Your task to perform on an android device: Find coffee shops on Maps Image 0: 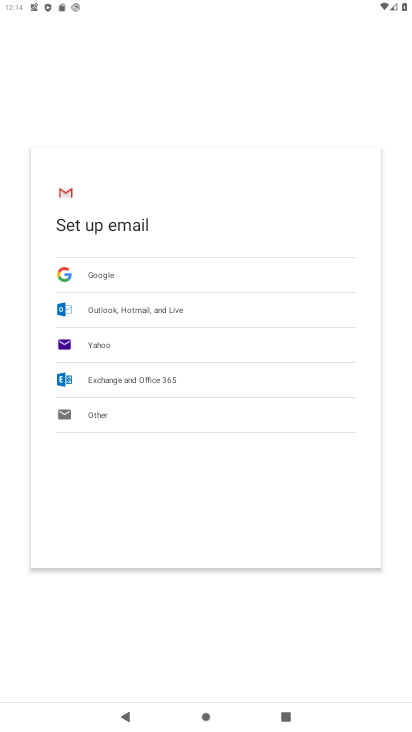
Step 0: press home button
Your task to perform on an android device: Find coffee shops on Maps Image 1: 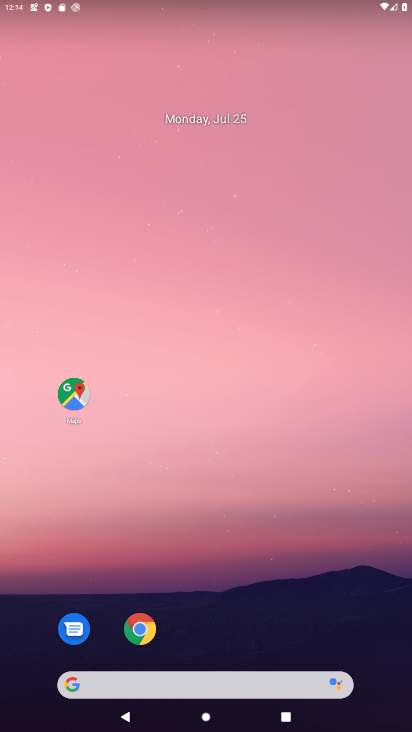
Step 1: click (76, 401)
Your task to perform on an android device: Find coffee shops on Maps Image 2: 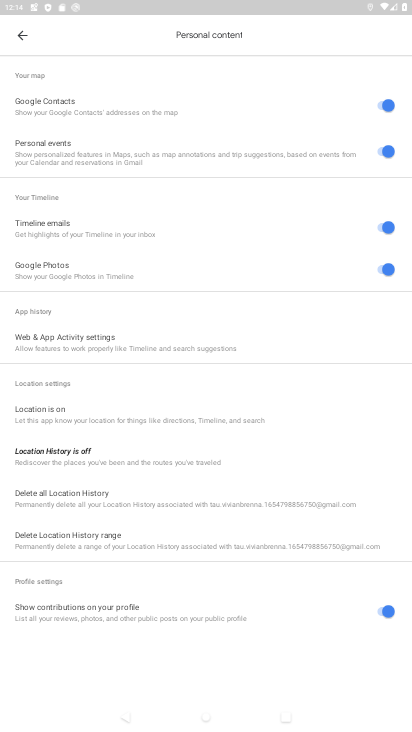
Step 2: click (20, 43)
Your task to perform on an android device: Find coffee shops on Maps Image 3: 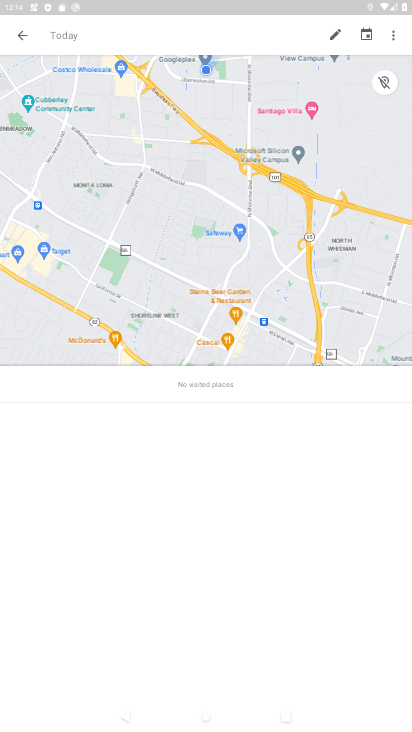
Step 3: click (20, 43)
Your task to perform on an android device: Find coffee shops on Maps Image 4: 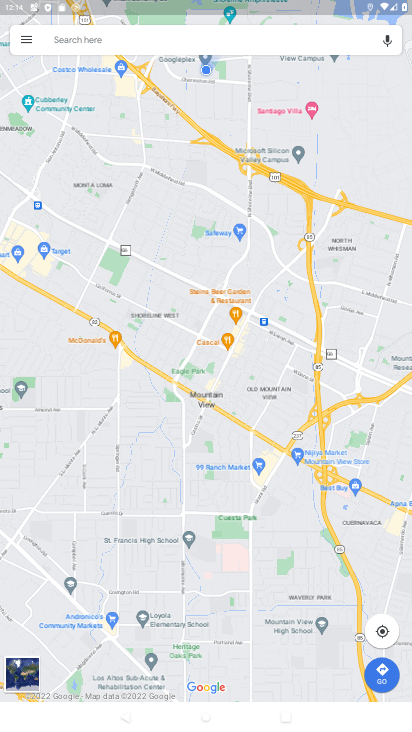
Step 4: click (72, 41)
Your task to perform on an android device: Find coffee shops on Maps Image 5: 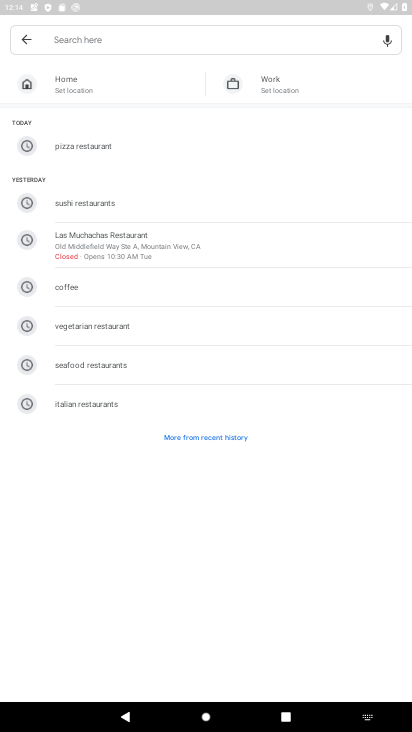
Step 5: type "coffee shops"
Your task to perform on an android device: Find coffee shops on Maps Image 6: 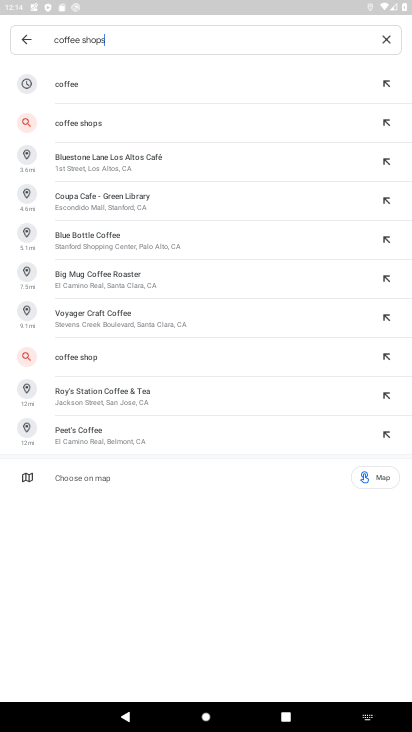
Step 6: click (192, 123)
Your task to perform on an android device: Find coffee shops on Maps Image 7: 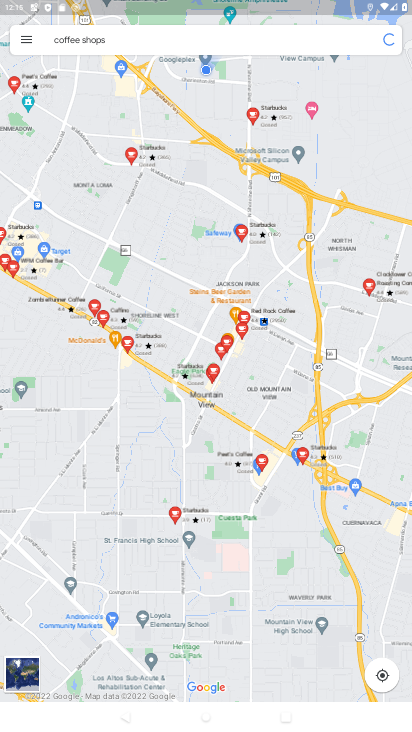
Step 7: task complete